Your task to perform on an android device: Play the last video I watched on Youtube Image 0: 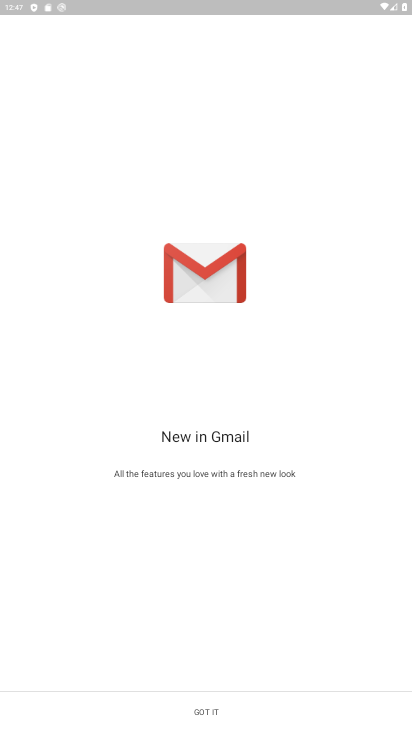
Step 0: press home button
Your task to perform on an android device: Play the last video I watched on Youtube Image 1: 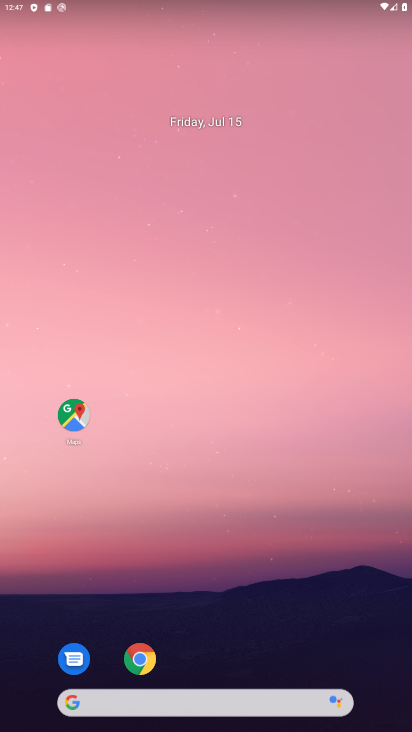
Step 1: drag from (225, 696) to (365, 43)
Your task to perform on an android device: Play the last video I watched on Youtube Image 2: 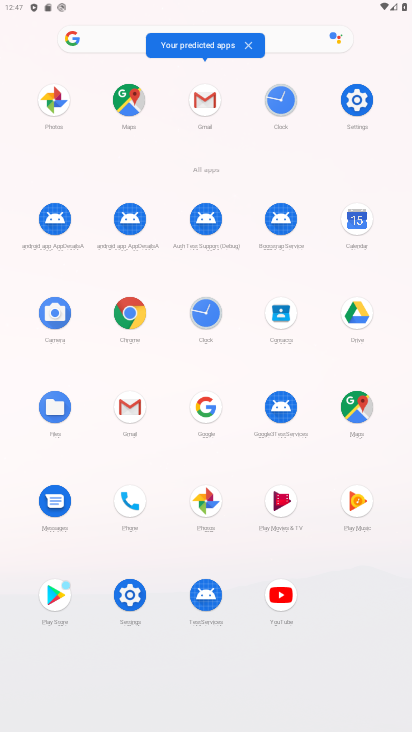
Step 2: click (288, 597)
Your task to perform on an android device: Play the last video I watched on Youtube Image 3: 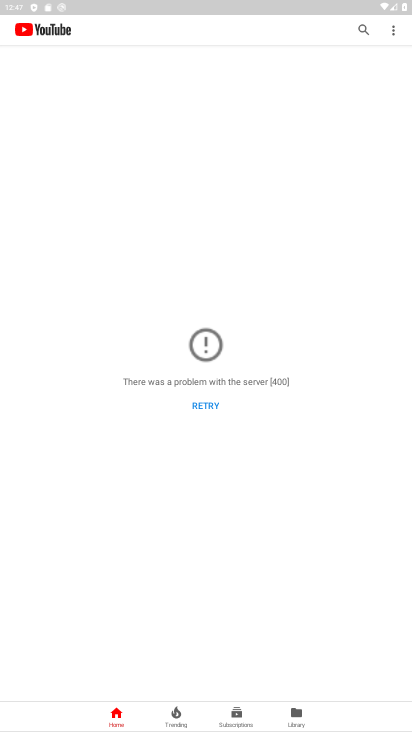
Step 3: click (293, 713)
Your task to perform on an android device: Play the last video I watched on Youtube Image 4: 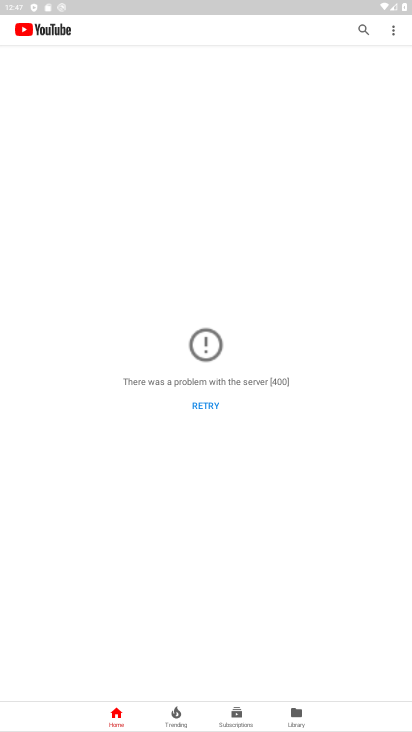
Step 4: task complete